Your task to perform on an android device: Open the map Image 0: 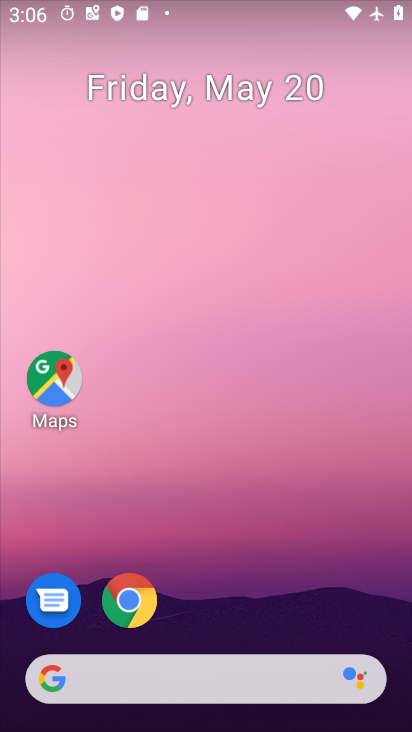
Step 0: drag from (227, 514) to (235, 37)
Your task to perform on an android device: Open the map Image 1: 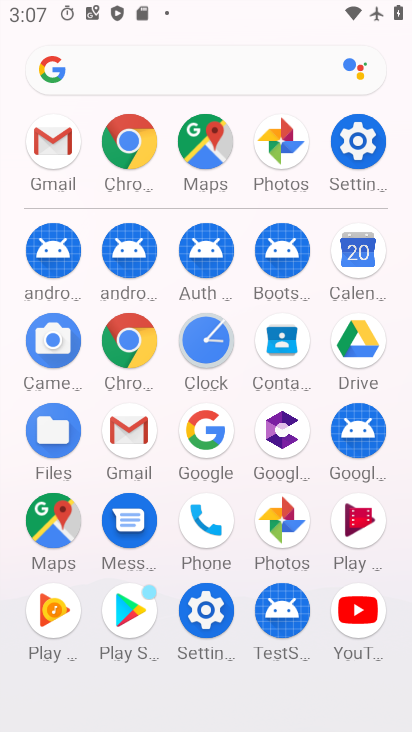
Step 1: click (57, 522)
Your task to perform on an android device: Open the map Image 2: 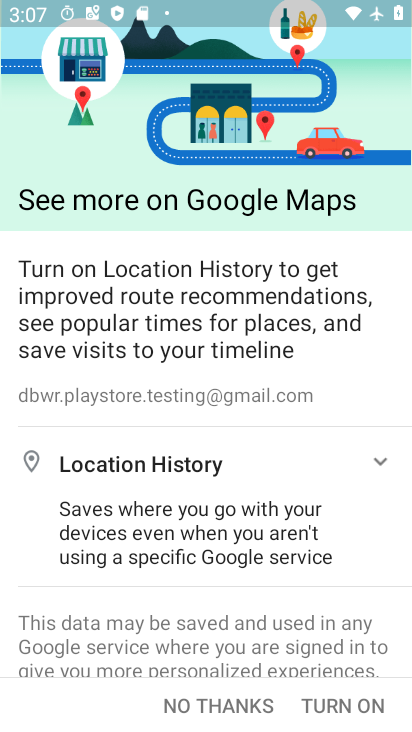
Step 2: click (365, 707)
Your task to perform on an android device: Open the map Image 3: 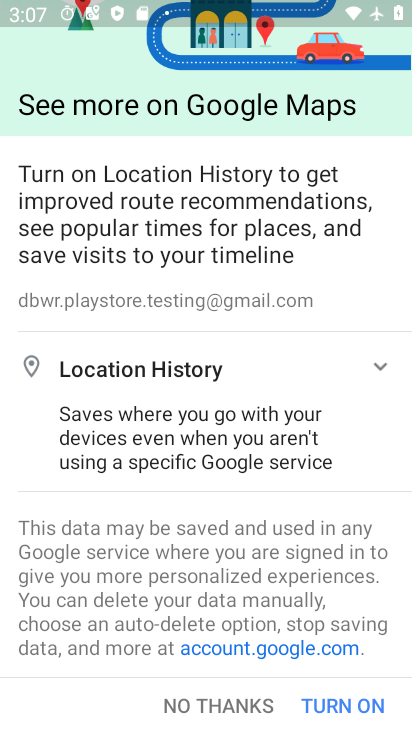
Step 3: click (365, 707)
Your task to perform on an android device: Open the map Image 4: 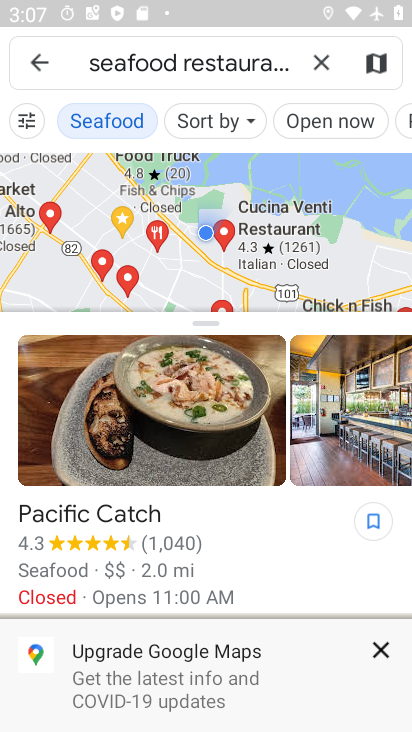
Step 4: click (33, 61)
Your task to perform on an android device: Open the map Image 5: 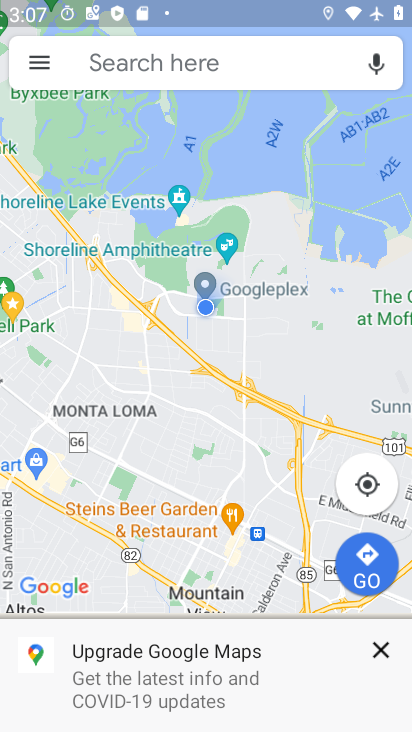
Step 5: task complete